Your task to perform on an android device: turn on priority inbox in the gmail app Image 0: 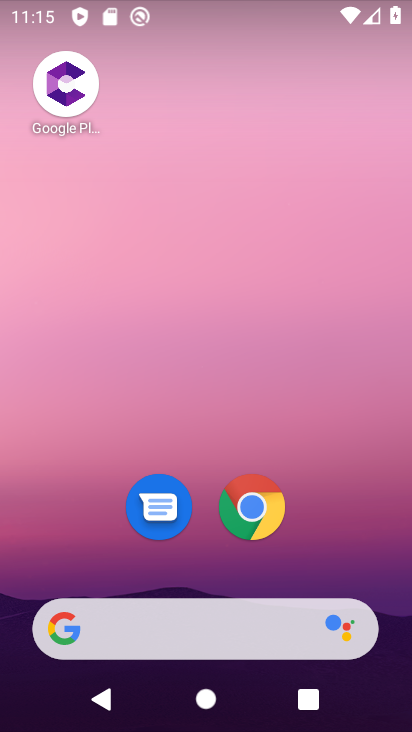
Step 0: drag from (360, 469) to (364, 129)
Your task to perform on an android device: turn on priority inbox in the gmail app Image 1: 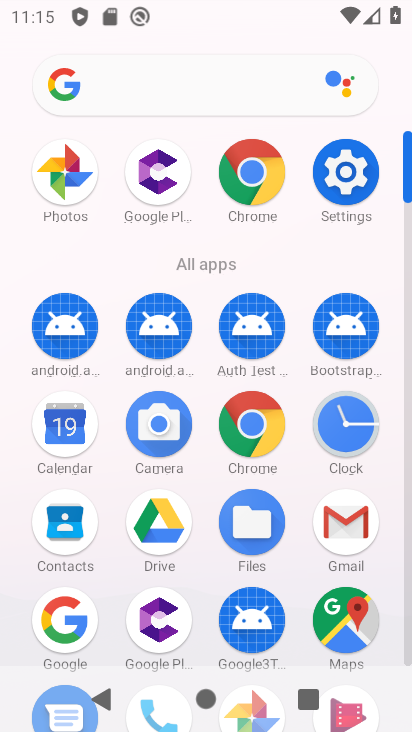
Step 1: click (336, 536)
Your task to perform on an android device: turn on priority inbox in the gmail app Image 2: 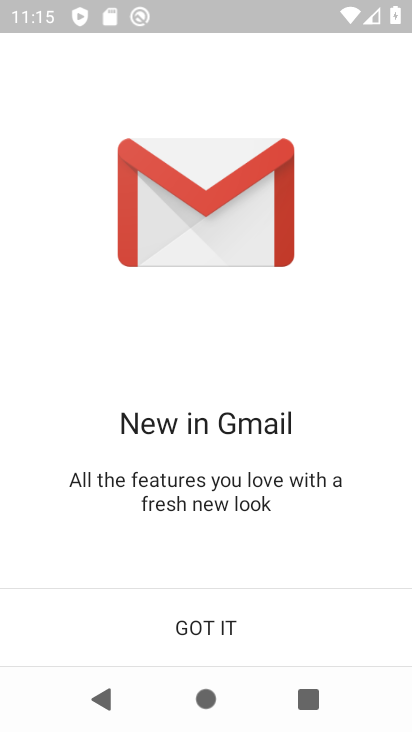
Step 2: click (214, 646)
Your task to perform on an android device: turn on priority inbox in the gmail app Image 3: 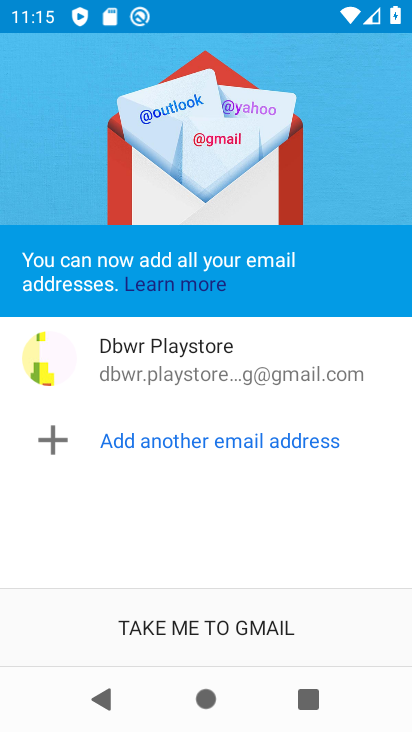
Step 3: click (214, 617)
Your task to perform on an android device: turn on priority inbox in the gmail app Image 4: 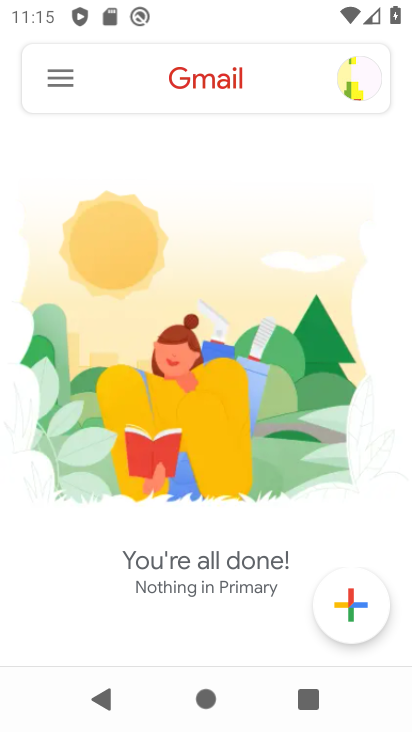
Step 4: click (48, 77)
Your task to perform on an android device: turn on priority inbox in the gmail app Image 5: 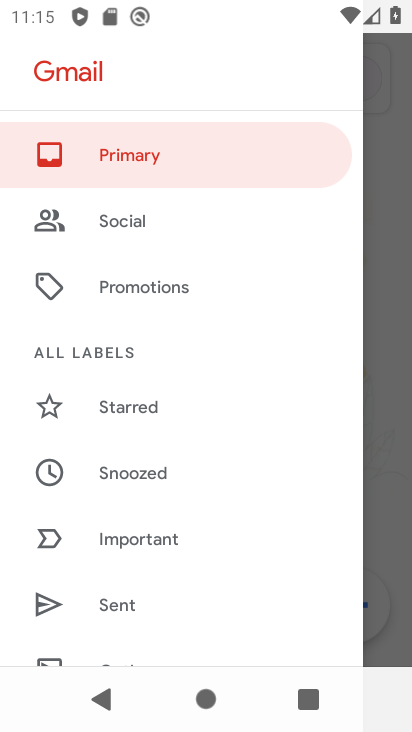
Step 5: drag from (213, 367) to (220, 283)
Your task to perform on an android device: turn on priority inbox in the gmail app Image 6: 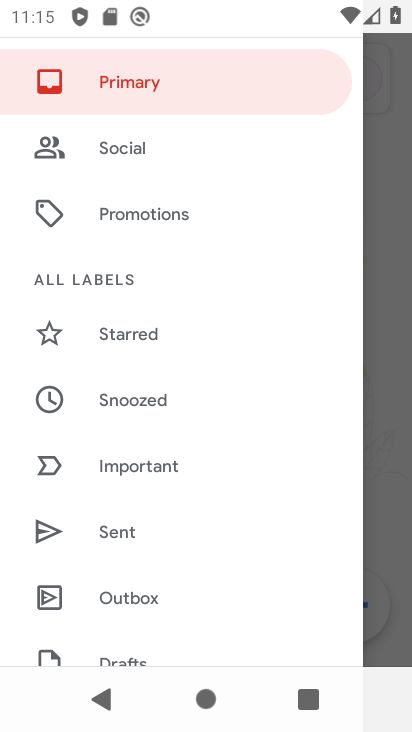
Step 6: drag from (200, 562) to (233, 250)
Your task to perform on an android device: turn on priority inbox in the gmail app Image 7: 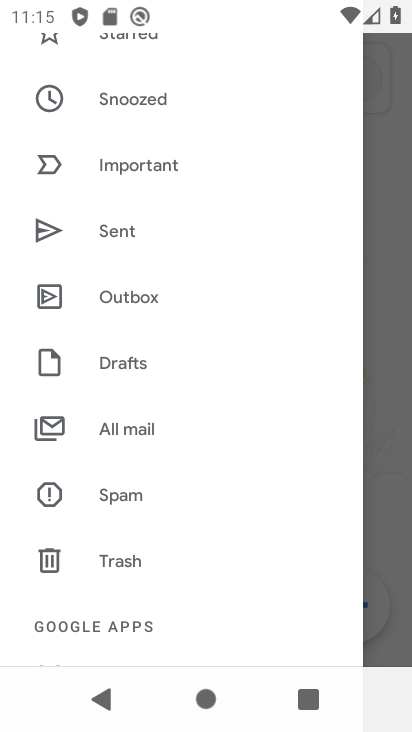
Step 7: drag from (232, 603) to (251, 273)
Your task to perform on an android device: turn on priority inbox in the gmail app Image 8: 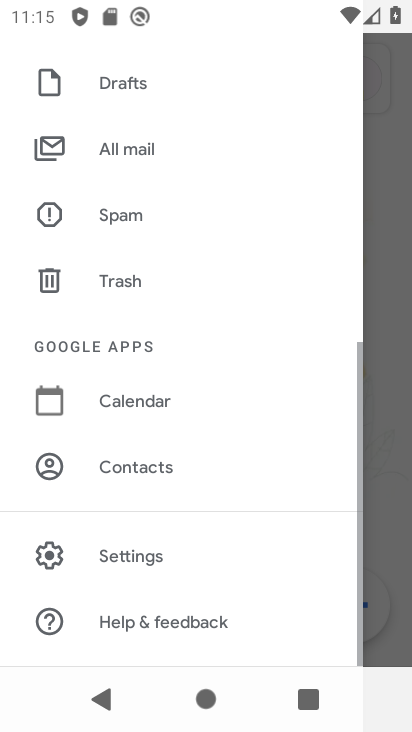
Step 8: click (113, 567)
Your task to perform on an android device: turn on priority inbox in the gmail app Image 9: 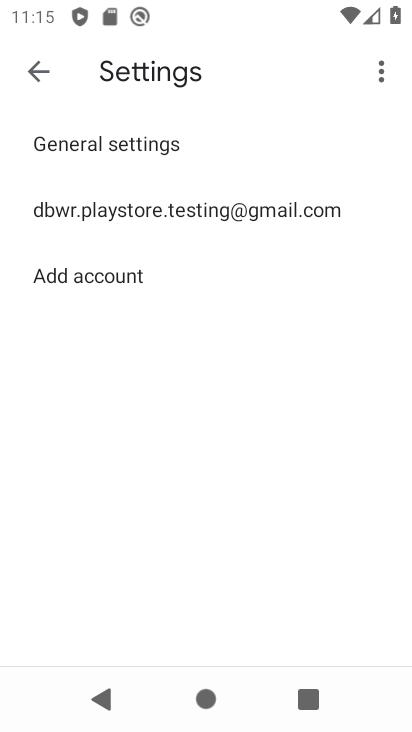
Step 9: click (116, 218)
Your task to perform on an android device: turn on priority inbox in the gmail app Image 10: 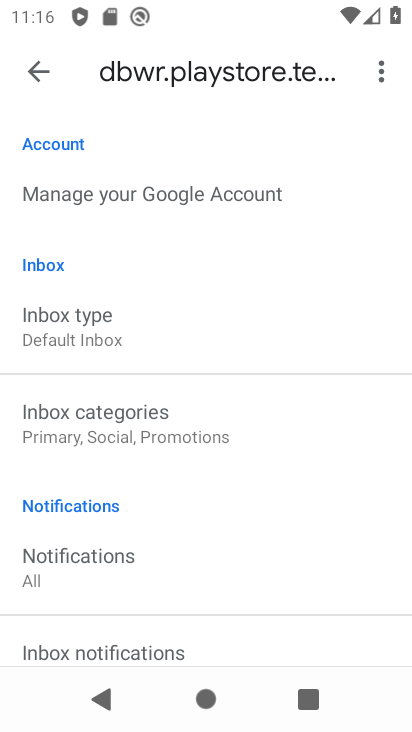
Step 10: click (110, 332)
Your task to perform on an android device: turn on priority inbox in the gmail app Image 11: 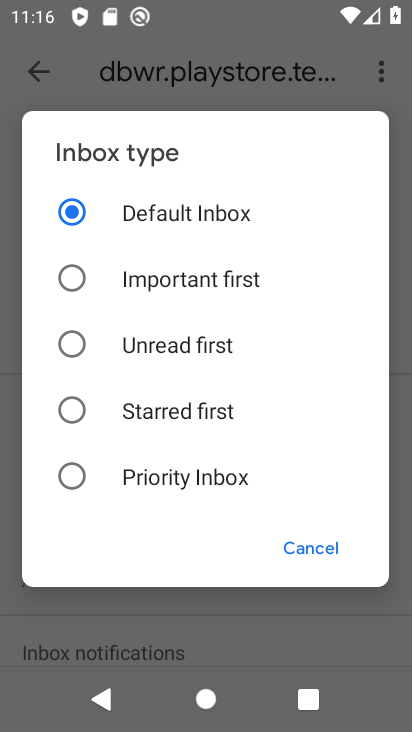
Step 11: click (147, 476)
Your task to perform on an android device: turn on priority inbox in the gmail app Image 12: 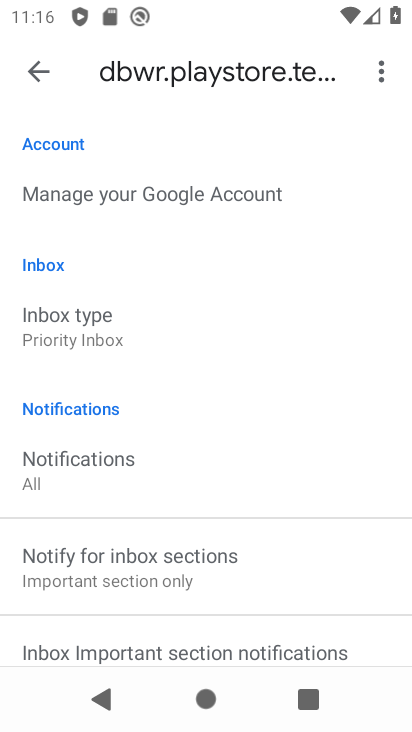
Step 12: task complete